Your task to perform on an android device: Open calendar and show me the third week of next month Image 0: 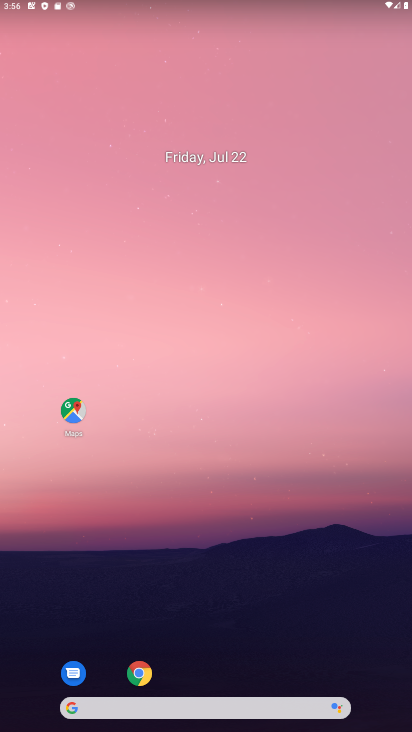
Step 0: press home button
Your task to perform on an android device: Open calendar and show me the third week of next month Image 1: 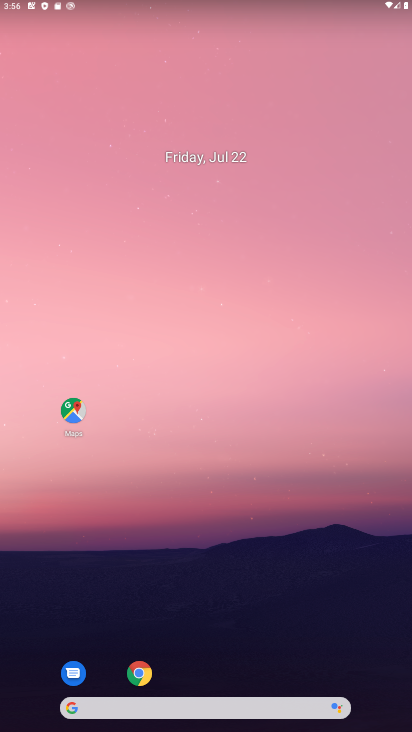
Step 1: drag from (212, 659) to (223, 48)
Your task to perform on an android device: Open calendar and show me the third week of next month Image 2: 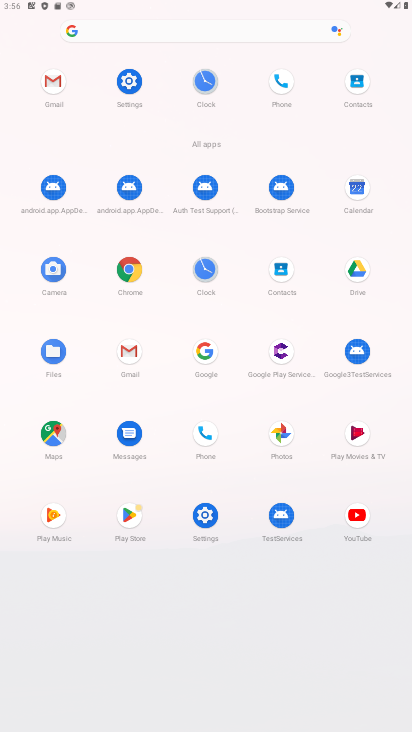
Step 2: click (357, 180)
Your task to perform on an android device: Open calendar and show me the third week of next month Image 3: 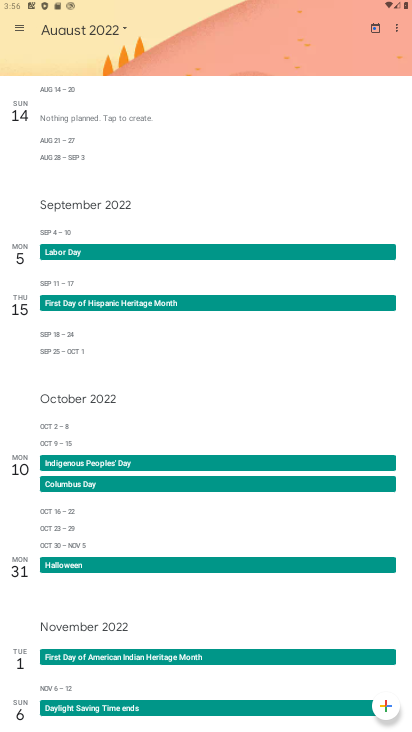
Step 3: click (118, 22)
Your task to perform on an android device: Open calendar and show me the third week of next month Image 4: 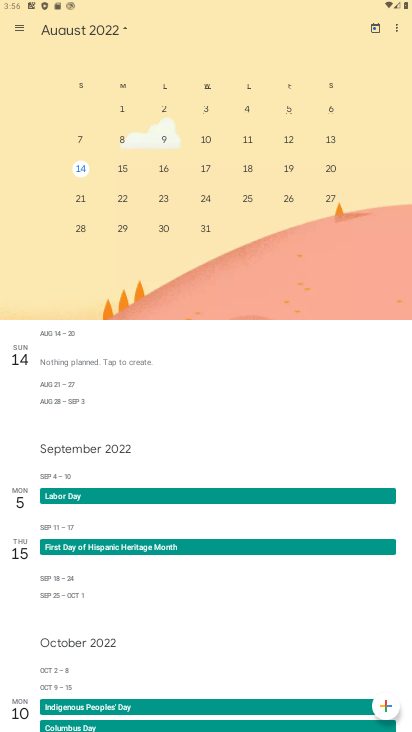
Step 4: click (81, 165)
Your task to perform on an android device: Open calendar and show me the third week of next month Image 5: 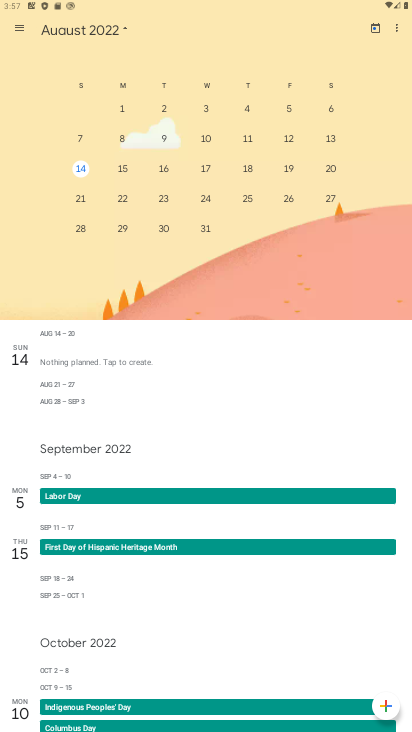
Step 5: click (12, 28)
Your task to perform on an android device: Open calendar and show me the third week of next month Image 6: 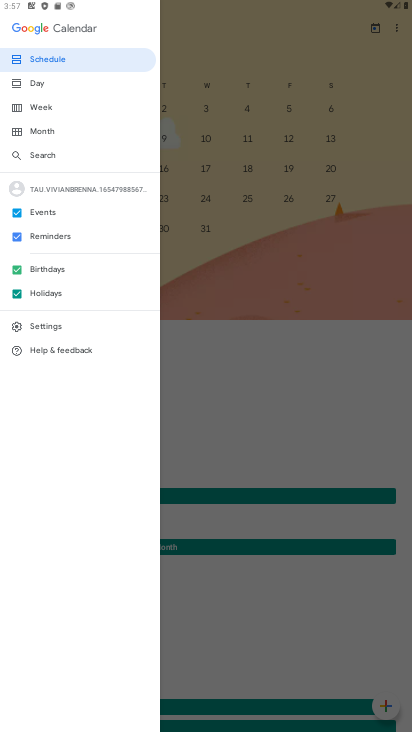
Step 6: click (34, 100)
Your task to perform on an android device: Open calendar and show me the third week of next month Image 7: 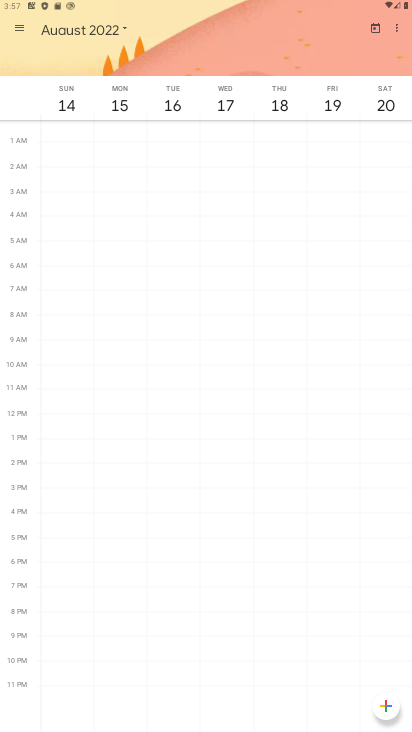
Step 7: click (58, 93)
Your task to perform on an android device: Open calendar and show me the third week of next month Image 8: 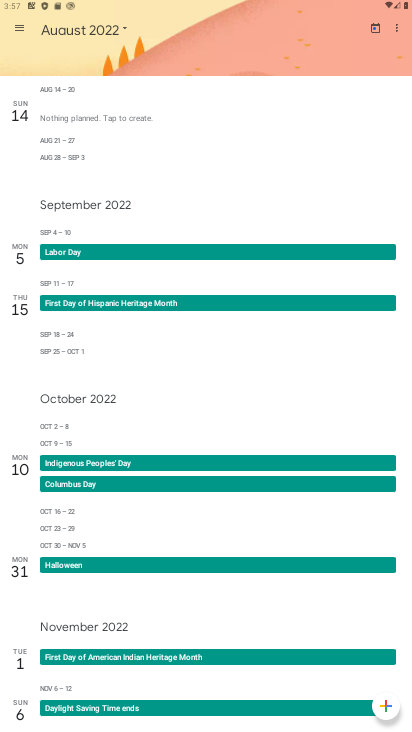
Step 8: task complete